Your task to perform on an android device: change the clock display to show seconds Image 0: 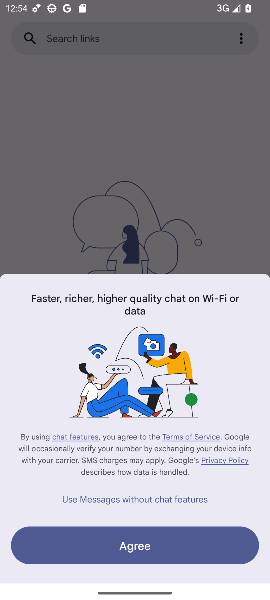
Step 0: press home button
Your task to perform on an android device: change the clock display to show seconds Image 1: 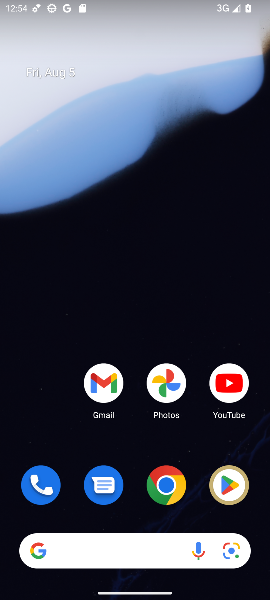
Step 1: drag from (42, 412) to (66, 80)
Your task to perform on an android device: change the clock display to show seconds Image 2: 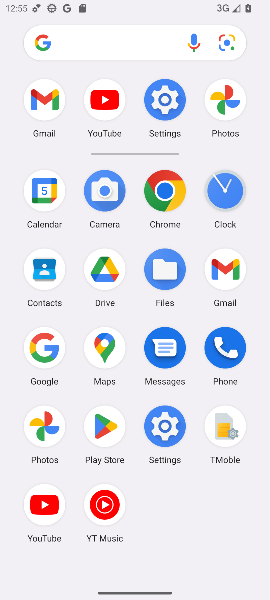
Step 2: click (225, 187)
Your task to perform on an android device: change the clock display to show seconds Image 3: 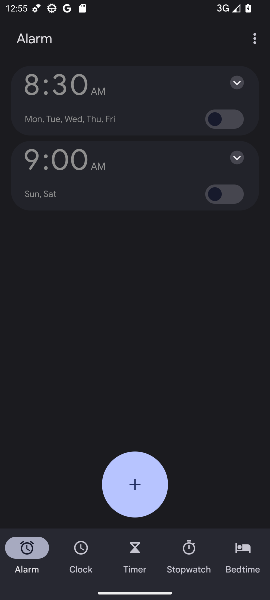
Step 3: click (258, 39)
Your task to perform on an android device: change the clock display to show seconds Image 4: 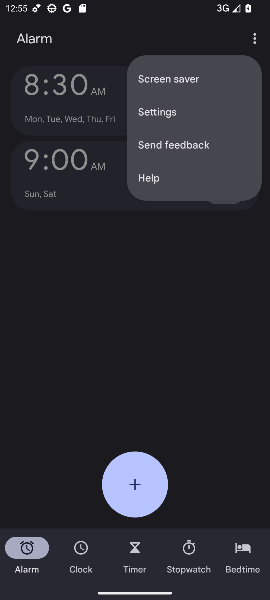
Step 4: click (161, 113)
Your task to perform on an android device: change the clock display to show seconds Image 5: 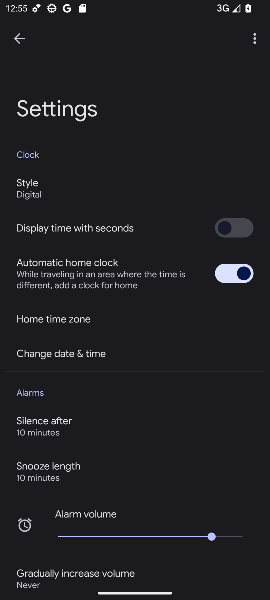
Step 5: click (221, 229)
Your task to perform on an android device: change the clock display to show seconds Image 6: 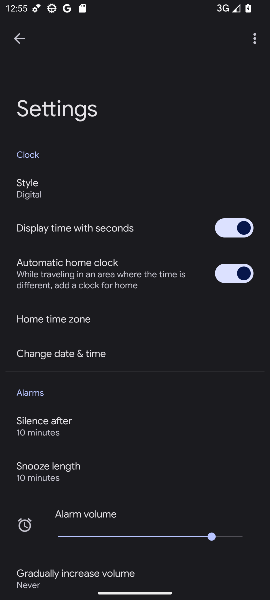
Step 6: task complete